Your task to perform on an android device: turn on the 12-hour format for clock Image 0: 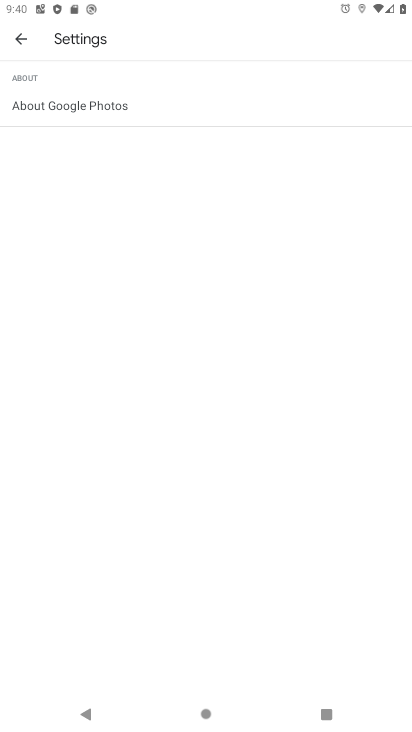
Step 0: press home button
Your task to perform on an android device: turn on the 12-hour format for clock Image 1: 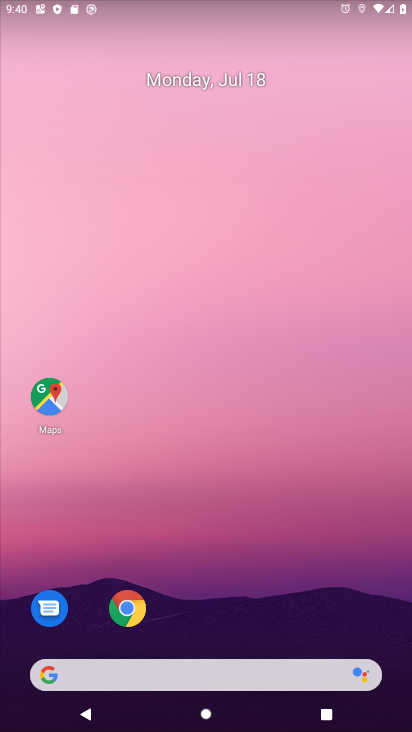
Step 1: drag from (25, 681) to (260, 86)
Your task to perform on an android device: turn on the 12-hour format for clock Image 2: 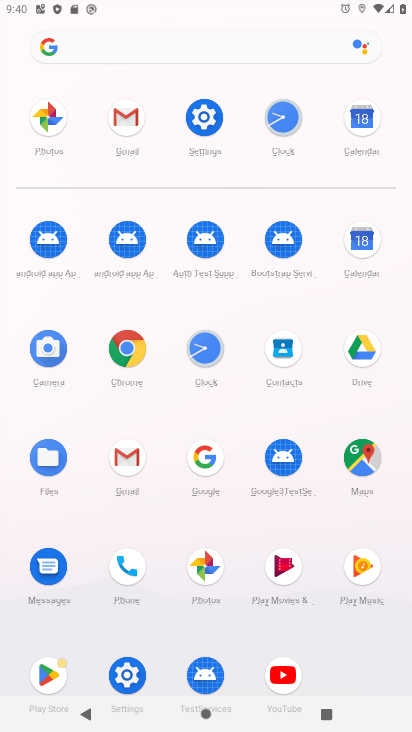
Step 2: click (210, 345)
Your task to perform on an android device: turn on the 12-hour format for clock Image 3: 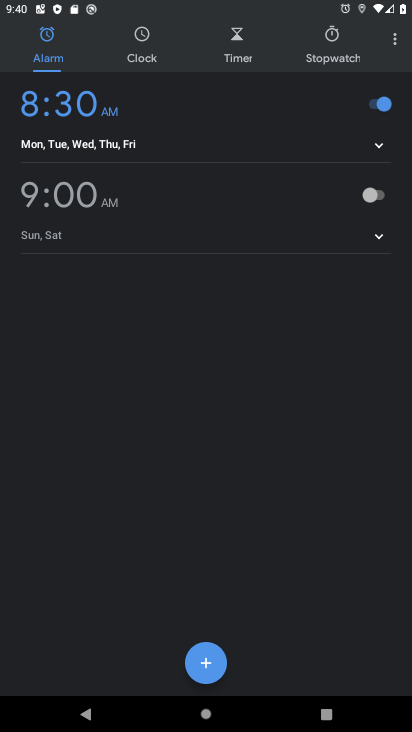
Step 3: click (393, 38)
Your task to perform on an android device: turn on the 12-hour format for clock Image 4: 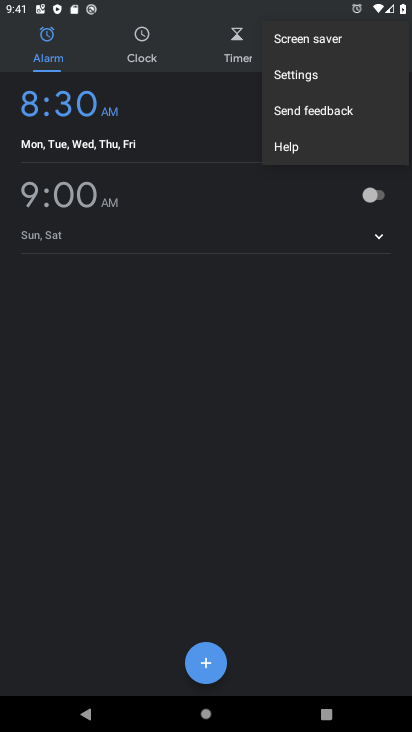
Step 4: click (295, 70)
Your task to perform on an android device: turn on the 12-hour format for clock Image 5: 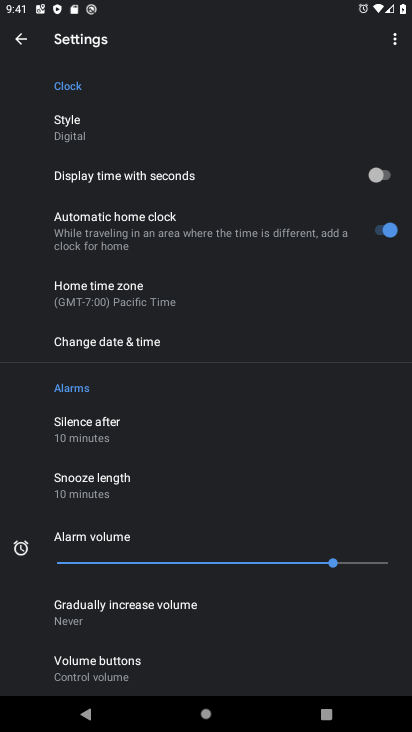
Step 5: click (153, 339)
Your task to perform on an android device: turn on the 12-hour format for clock Image 6: 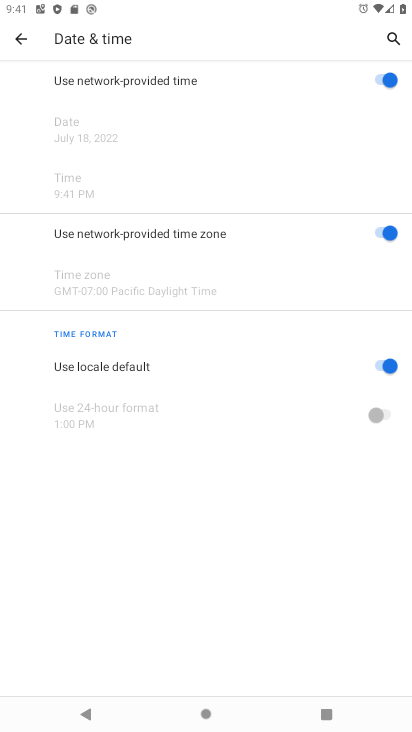
Step 6: click (389, 354)
Your task to perform on an android device: turn on the 12-hour format for clock Image 7: 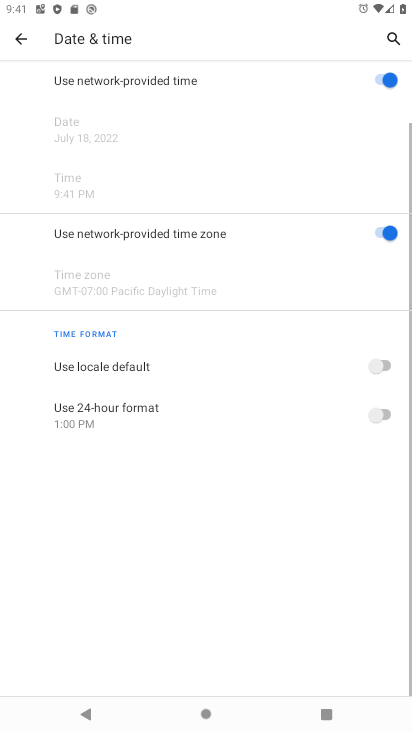
Step 7: click (385, 414)
Your task to perform on an android device: turn on the 12-hour format for clock Image 8: 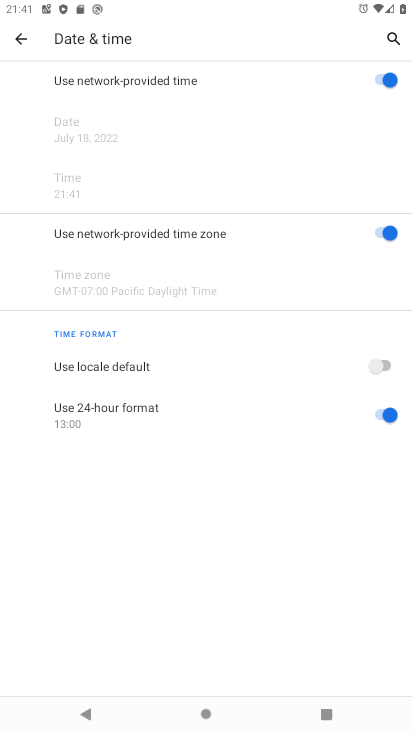
Step 8: task complete